Your task to perform on an android device: Check the weather Image 0: 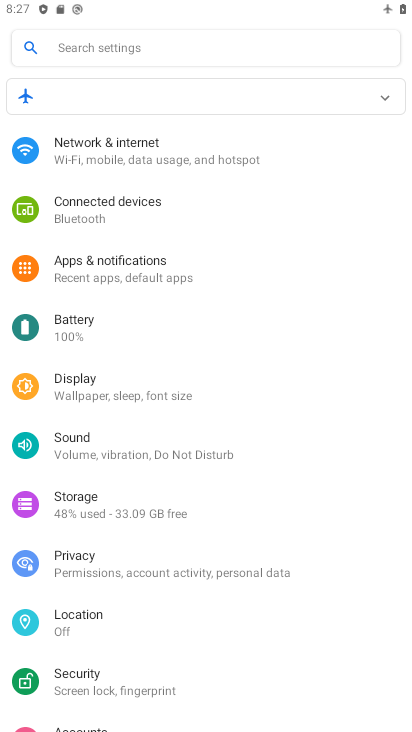
Step 0: press home button
Your task to perform on an android device: Check the weather Image 1: 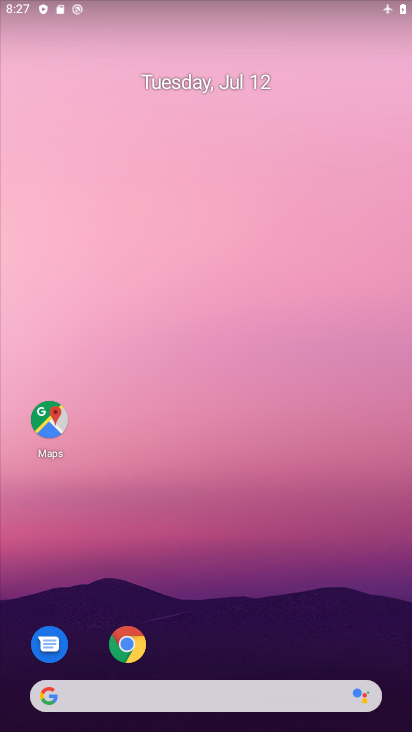
Step 1: drag from (208, 637) to (202, 157)
Your task to perform on an android device: Check the weather Image 2: 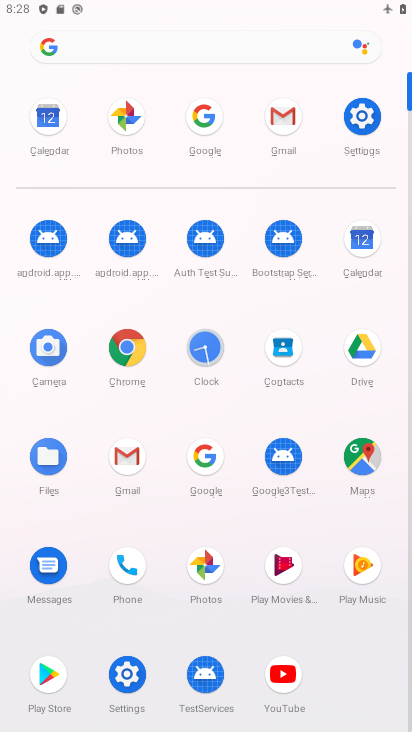
Step 2: click (206, 135)
Your task to perform on an android device: Check the weather Image 3: 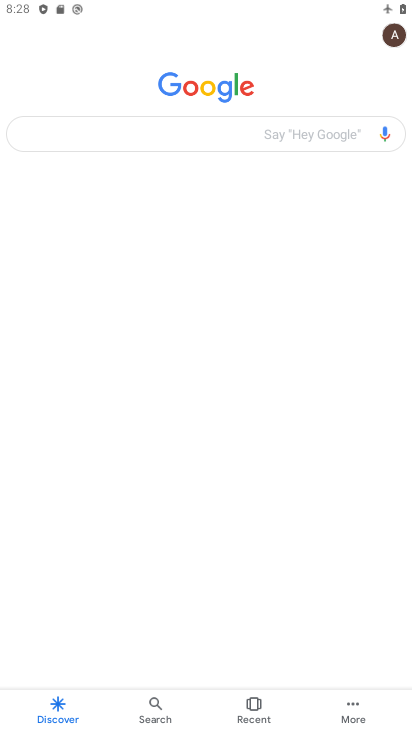
Step 3: click (206, 135)
Your task to perform on an android device: Check the weather Image 4: 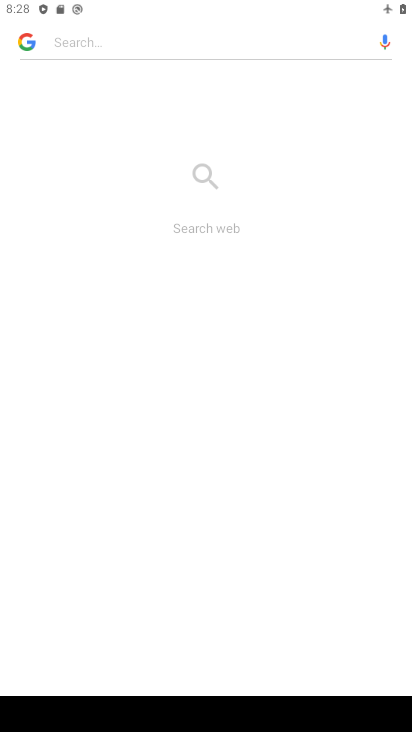
Step 4: type "weather"
Your task to perform on an android device: Check the weather Image 5: 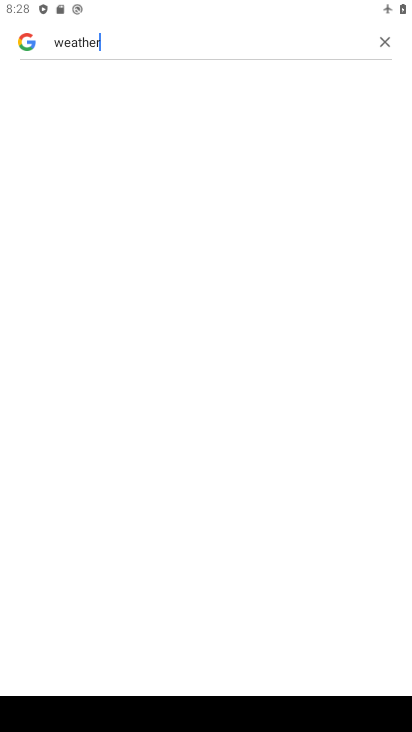
Step 5: task complete